Your task to perform on an android device: turn on improve location accuracy Image 0: 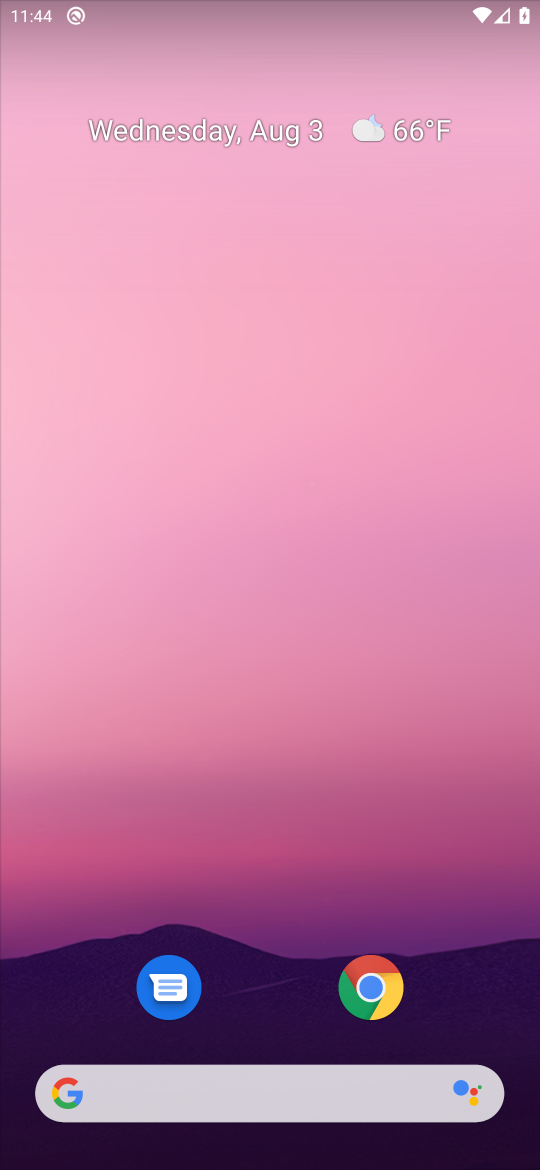
Step 0: press home button
Your task to perform on an android device: turn on improve location accuracy Image 1: 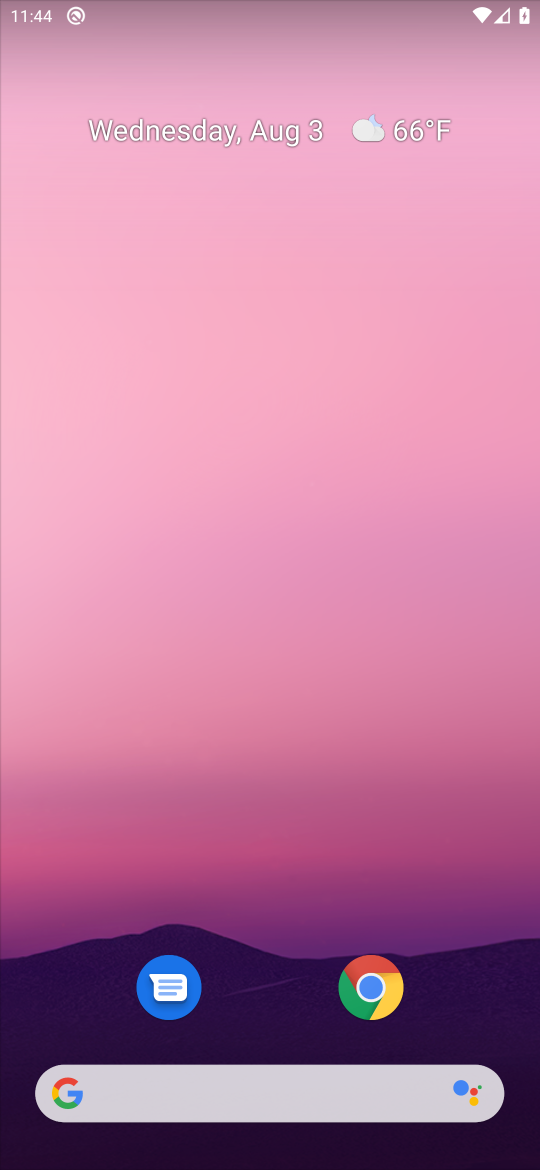
Step 1: drag from (289, 1046) to (112, 255)
Your task to perform on an android device: turn on improve location accuracy Image 2: 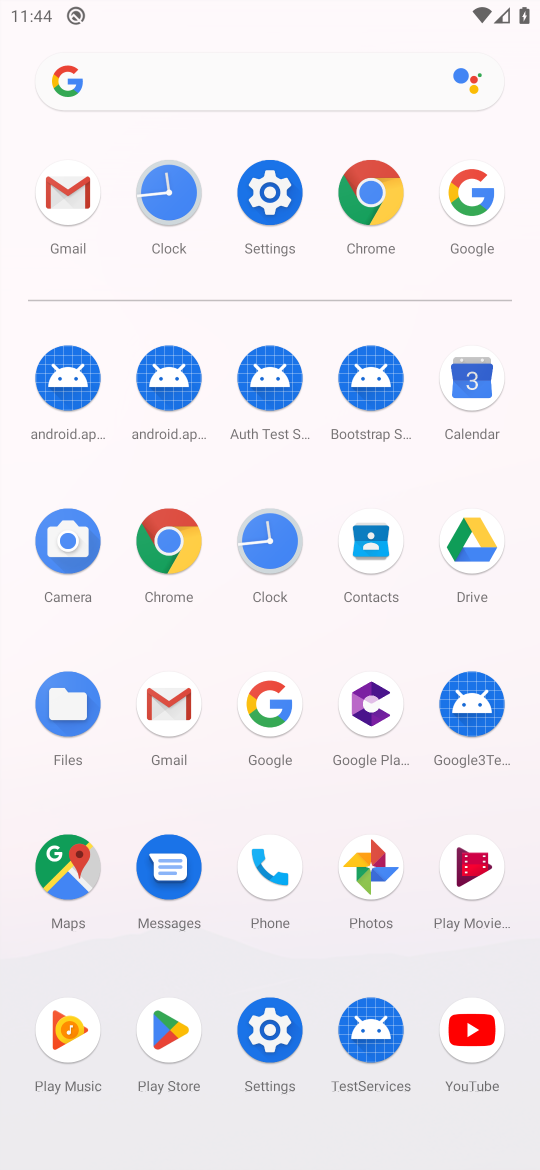
Step 2: click (256, 186)
Your task to perform on an android device: turn on improve location accuracy Image 3: 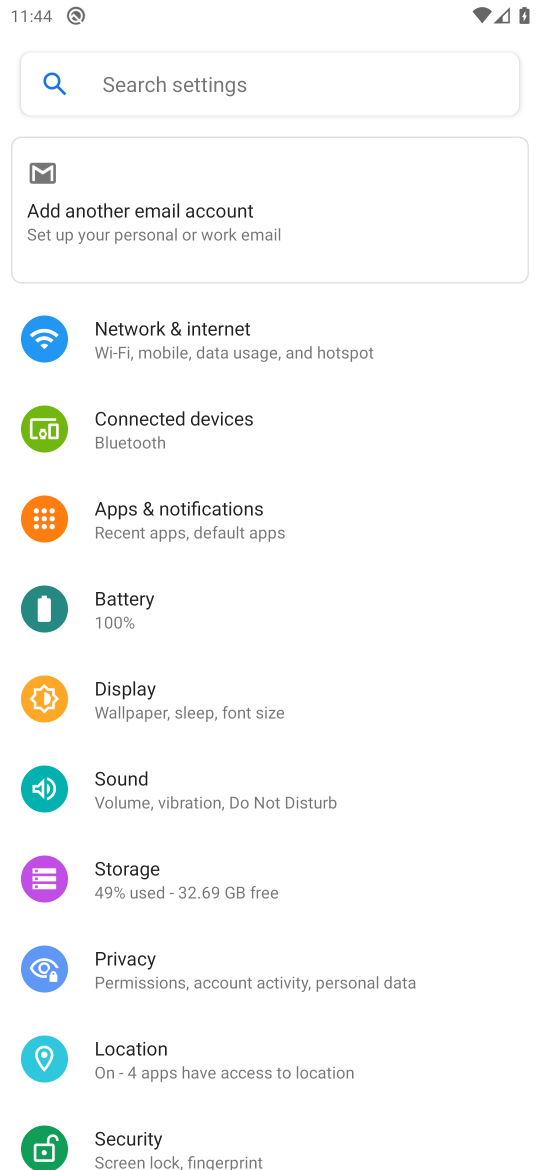
Step 3: click (153, 1060)
Your task to perform on an android device: turn on improve location accuracy Image 4: 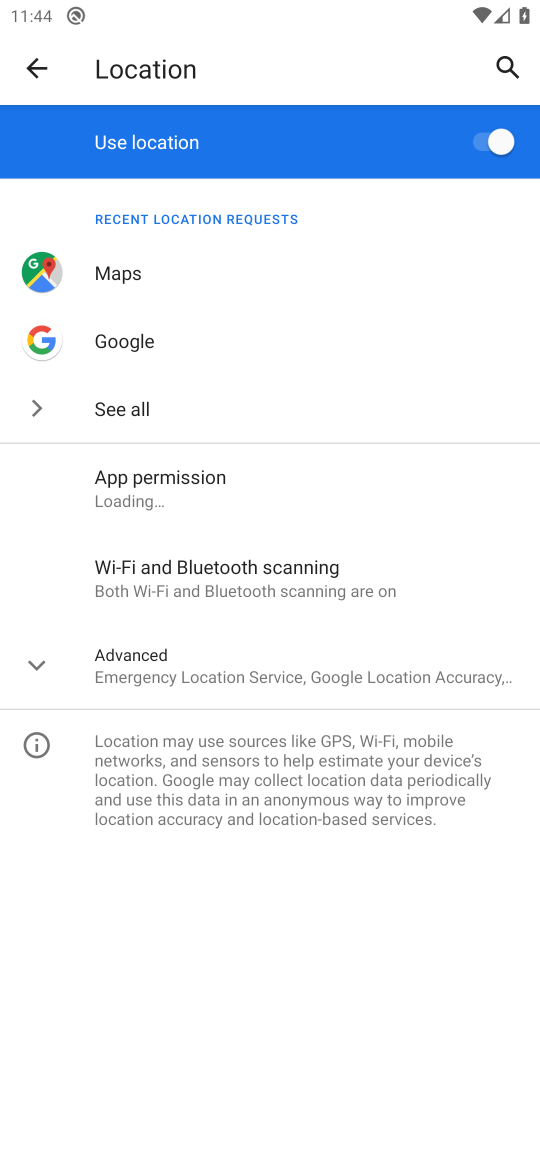
Step 4: click (225, 671)
Your task to perform on an android device: turn on improve location accuracy Image 5: 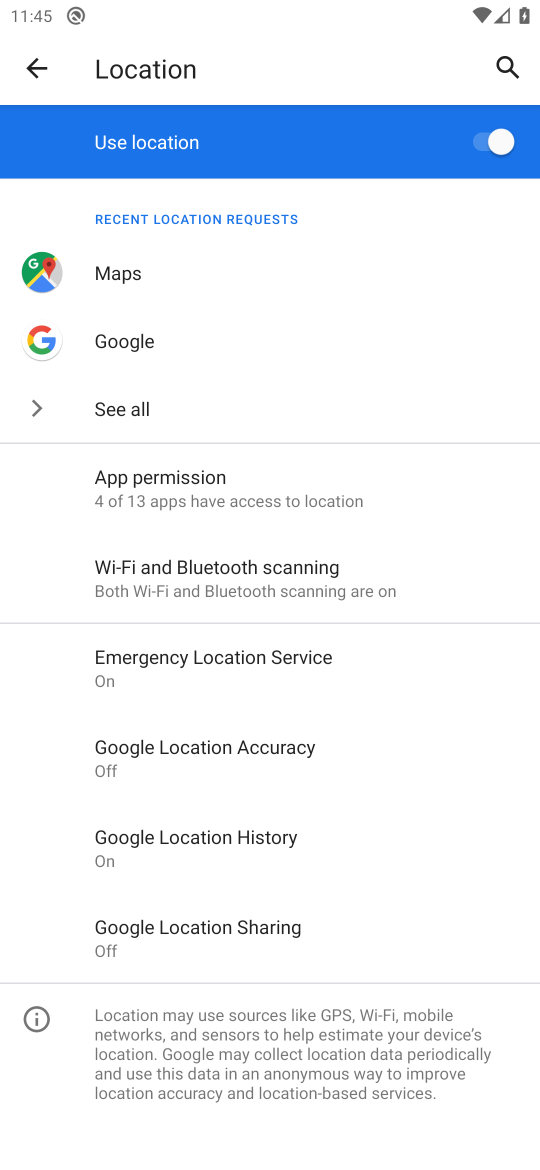
Step 5: click (186, 753)
Your task to perform on an android device: turn on improve location accuracy Image 6: 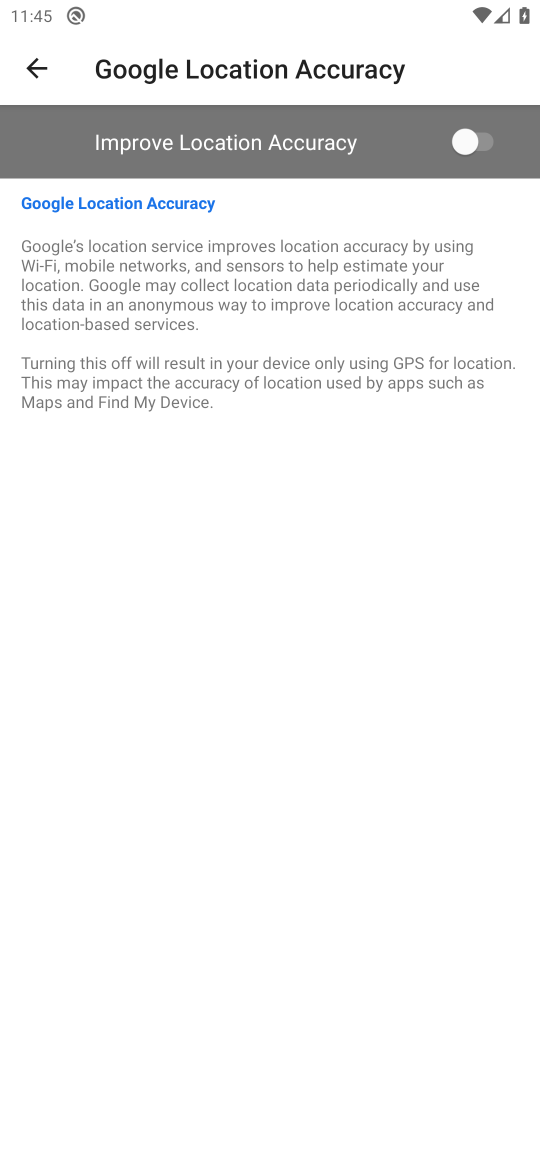
Step 6: click (469, 134)
Your task to perform on an android device: turn on improve location accuracy Image 7: 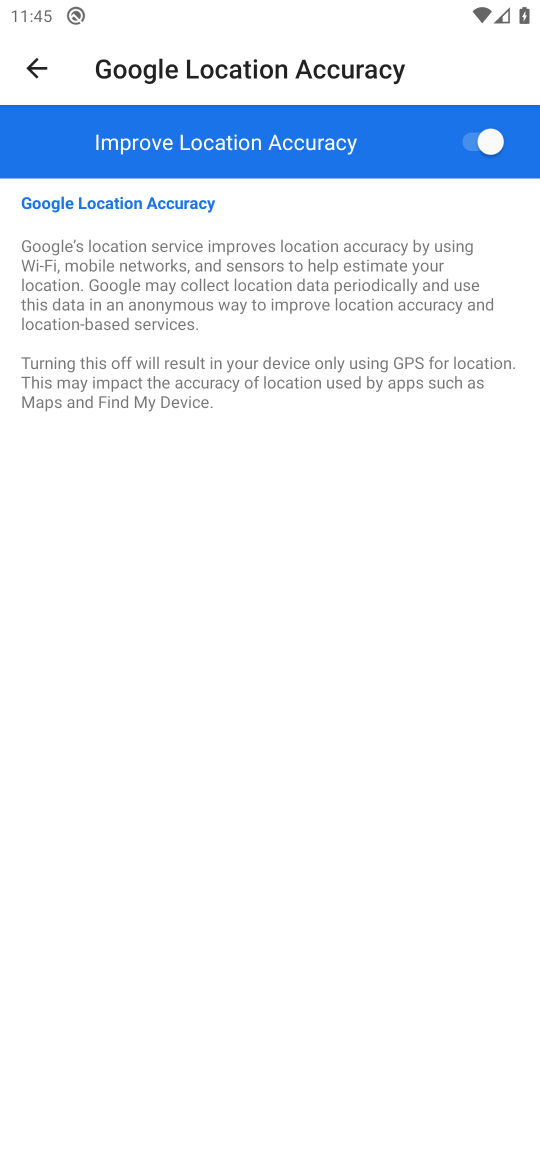
Step 7: task complete